Your task to perform on an android device: What's the weather? Image 0: 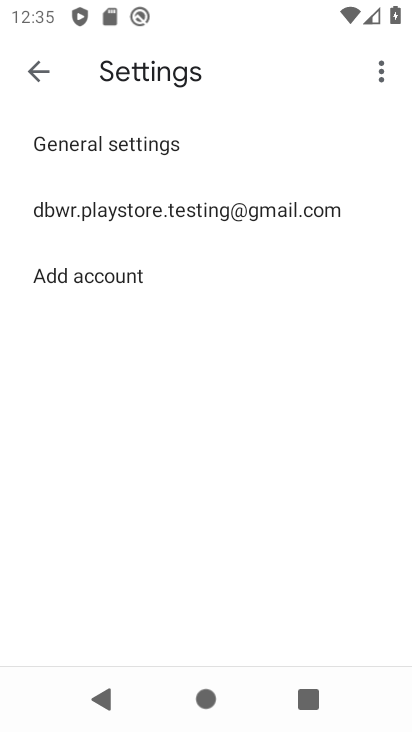
Step 0: press home button
Your task to perform on an android device: What's the weather? Image 1: 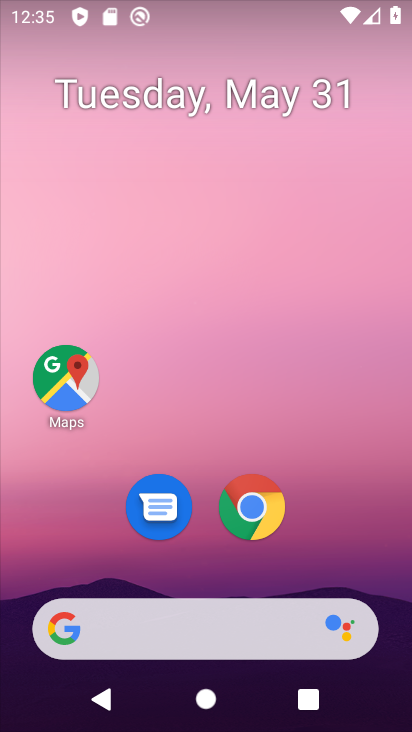
Step 1: drag from (350, 517) to (257, 186)
Your task to perform on an android device: What's the weather? Image 2: 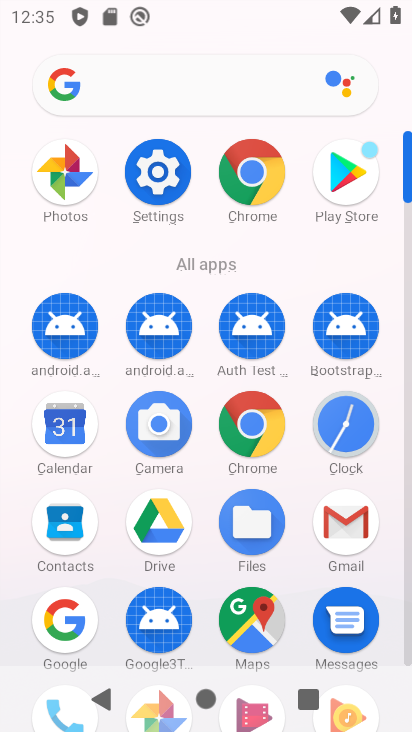
Step 2: click (258, 176)
Your task to perform on an android device: What's the weather? Image 3: 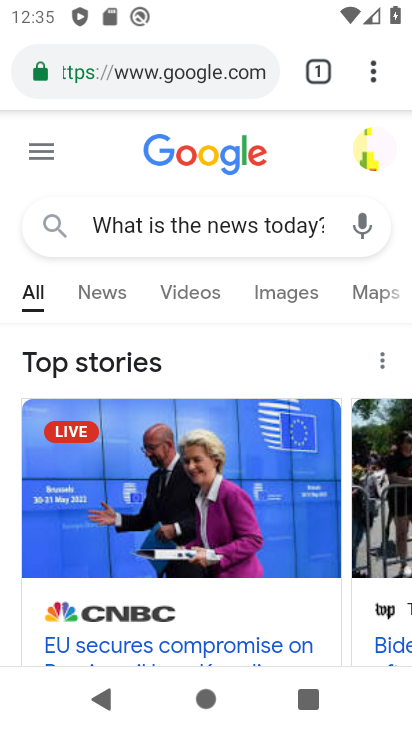
Step 3: click (179, 76)
Your task to perform on an android device: What's the weather? Image 4: 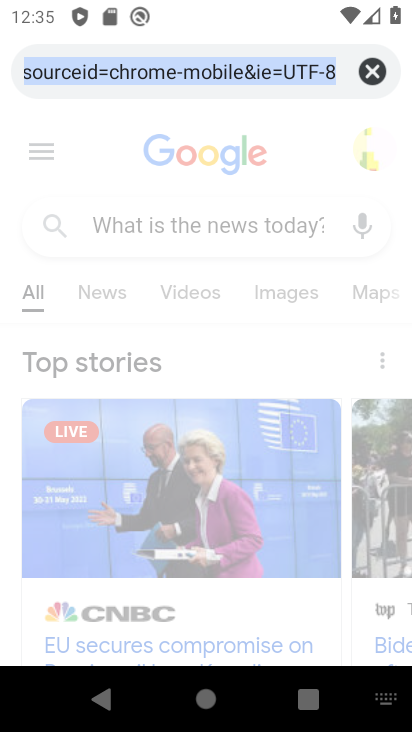
Step 4: click (370, 65)
Your task to perform on an android device: What's the weather? Image 5: 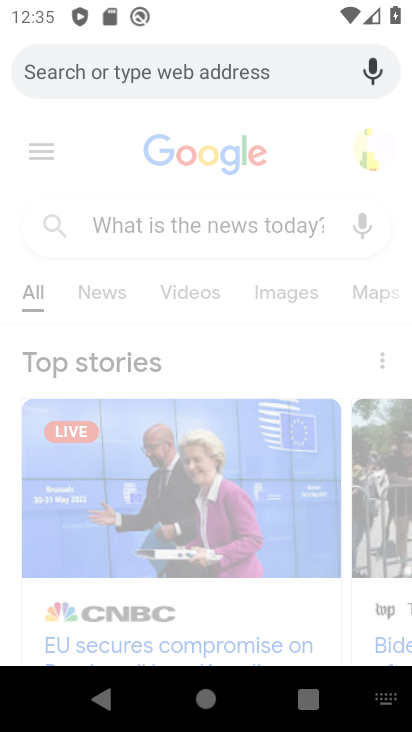
Step 5: type "What's the weather?"
Your task to perform on an android device: What's the weather? Image 6: 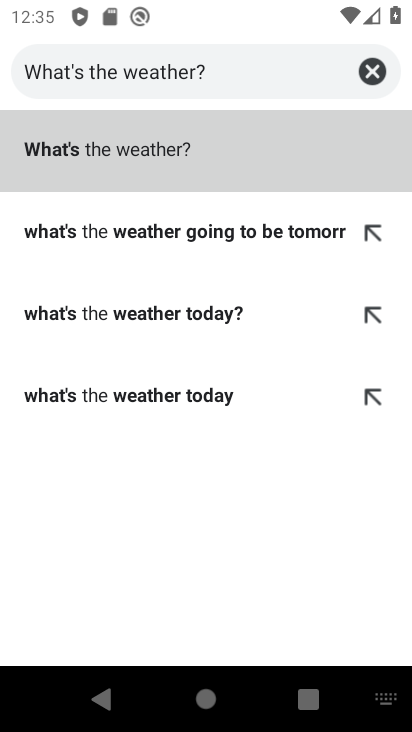
Step 6: click (133, 132)
Your task to perform on an android device: What's the weather? Image 7: 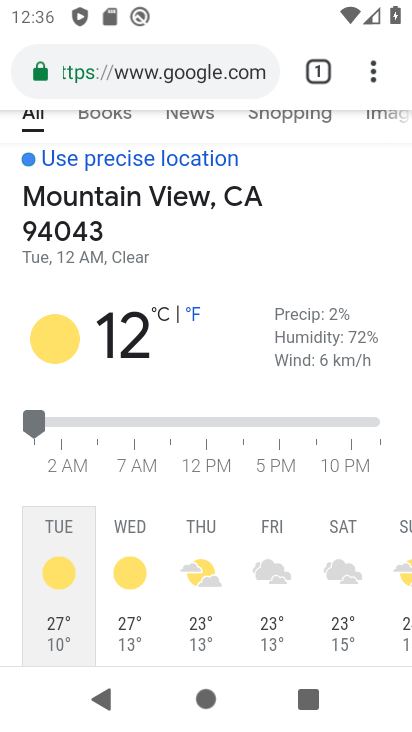
Step 7: task complete